Your task to perform on an android device: Search for vegetarian restaurants on Maps Image 0: 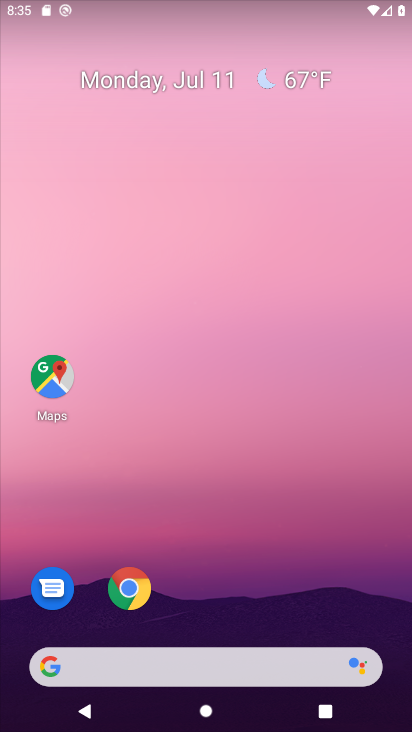
Step 0: click (49, 372)
Your task to perform on an android device: Search for vegetarian restaurants on Maps Image 1: 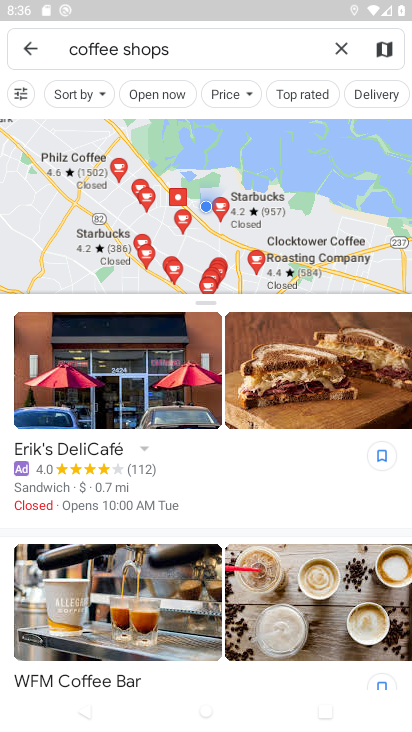
Step 1: click (345, 41)
Your task to perform on an android device: Search for vegetarian restaurants on Maps Image 2: 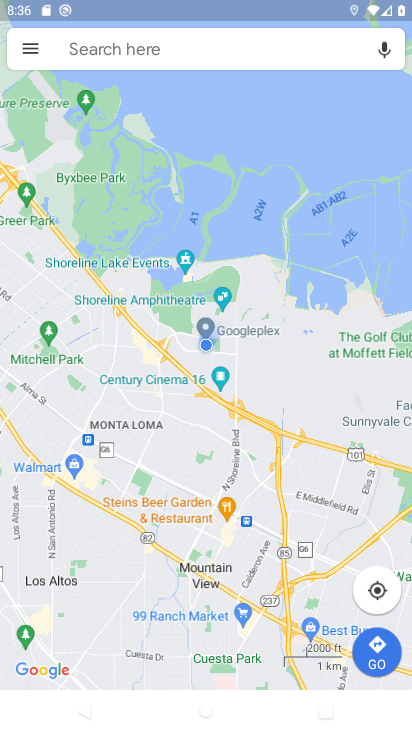
Step 2: click (142, 45)
Your task to perform on an android device: Search for vegetarian restaurants on Maps Image 3: 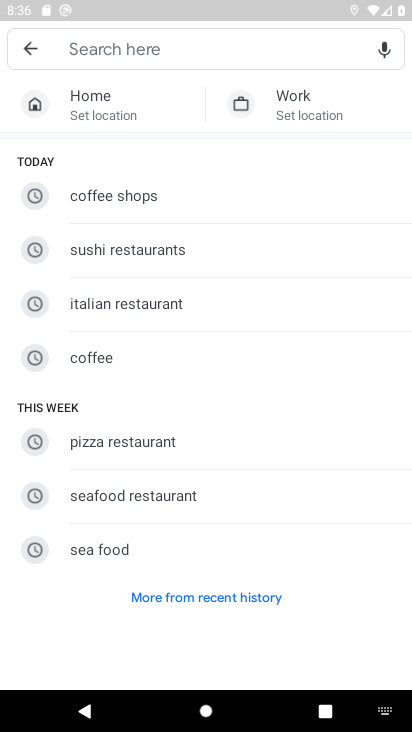
Step 3: type "vegetarian restaurants"
Your task to perform on an android device: Search for vegetarian restaurants on Maps Image 4: 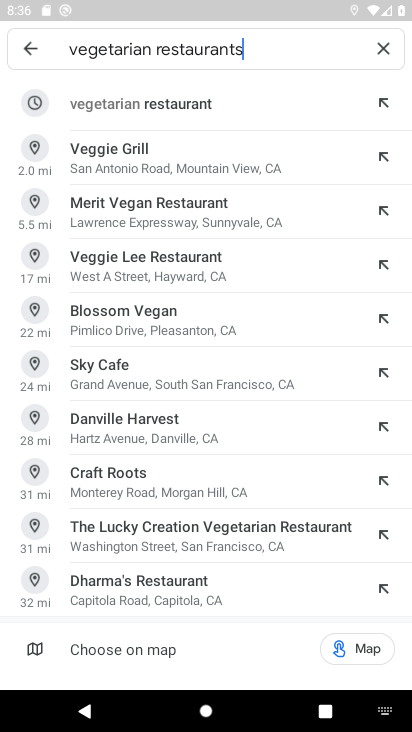
Step 4: click (181, 76)
Your task to perform on an android device: Search for vegetarian restaurants on Maps Image 5: 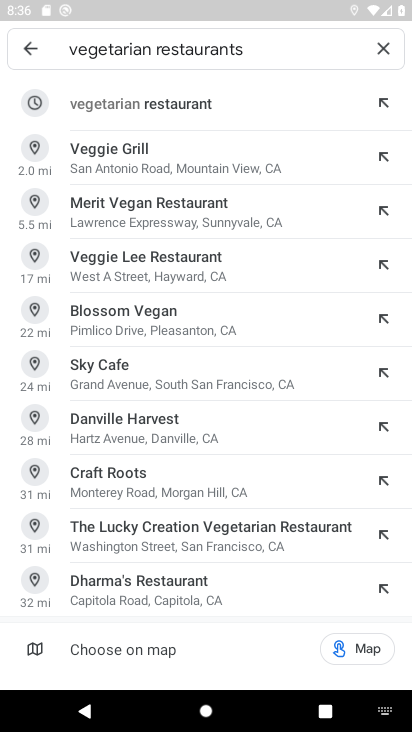
Step 5: click (178, 109)
Your task to perform on an android device: Search for vegetarian restaurants on Maps Image 6: 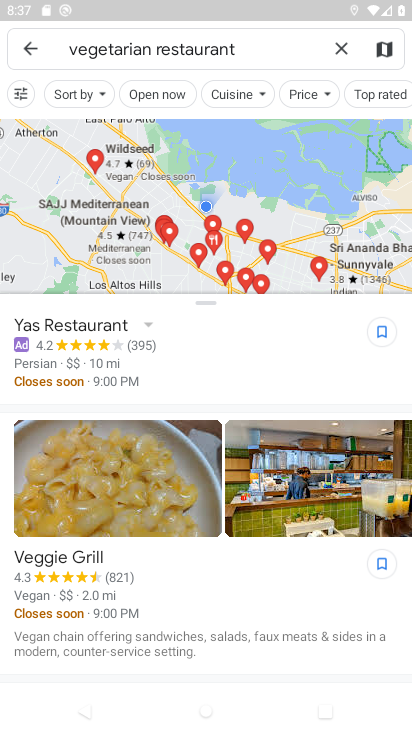
Step 6: task complete